Your task to perform on an android device: set the timer Image 0: 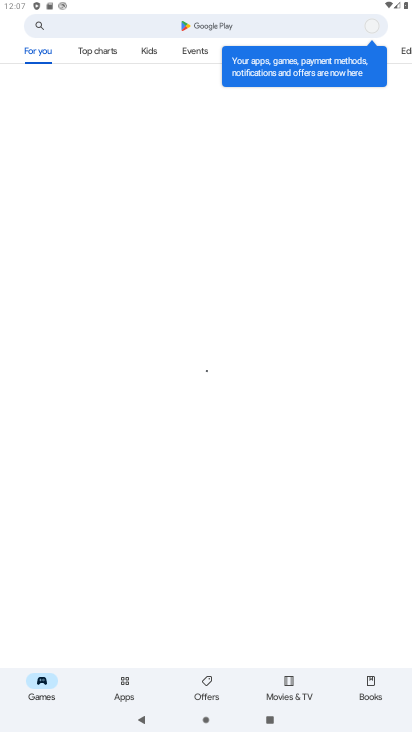
Step 0: press home button
Your task to perform on an android device: set the timer Image 1: 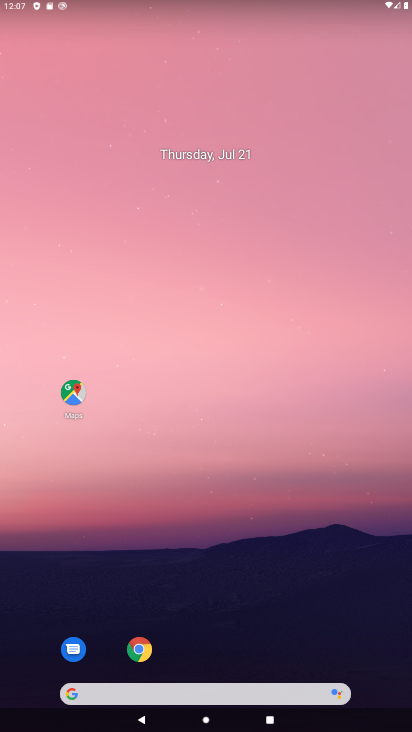
Step 1: drag from (219, 662) to (220, 270)
Your task to perform on an android device: set the timer Image 2: 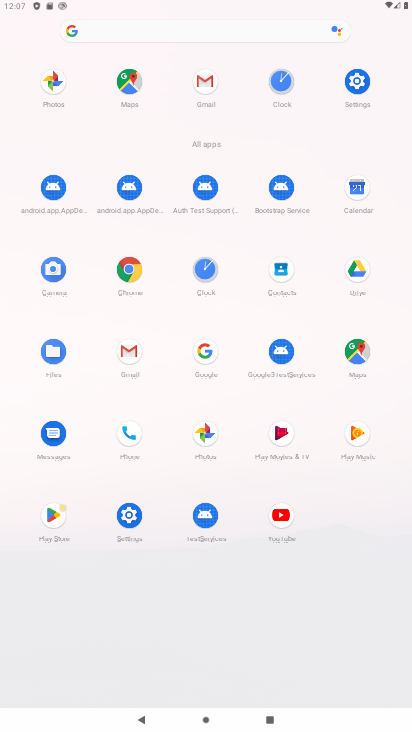
Step 2: click (199, 266)
Your task to perform on an android device: set the timer Image 3: 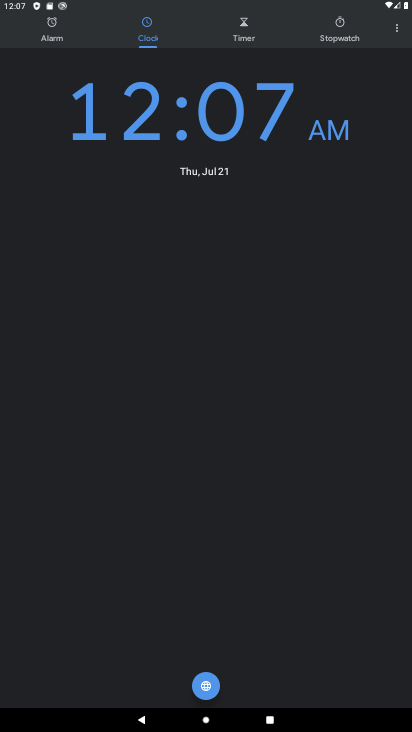
Step 3: click (242, 30)
Your task to perform on an android device: set the timer Image 4: 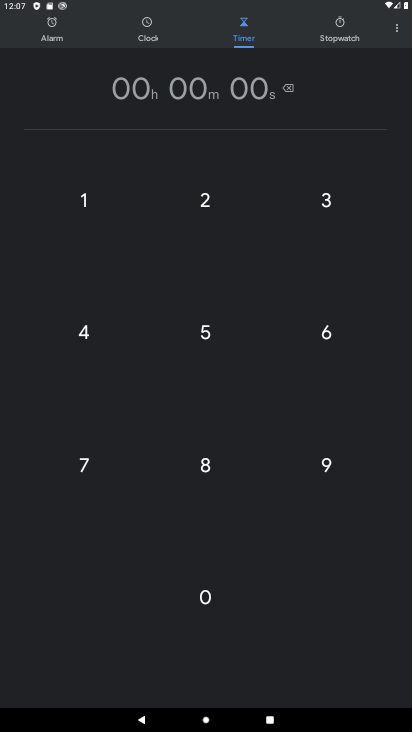
Step 4: click (206, 204)
Your task to perform on an android device: set the timer Image 5: 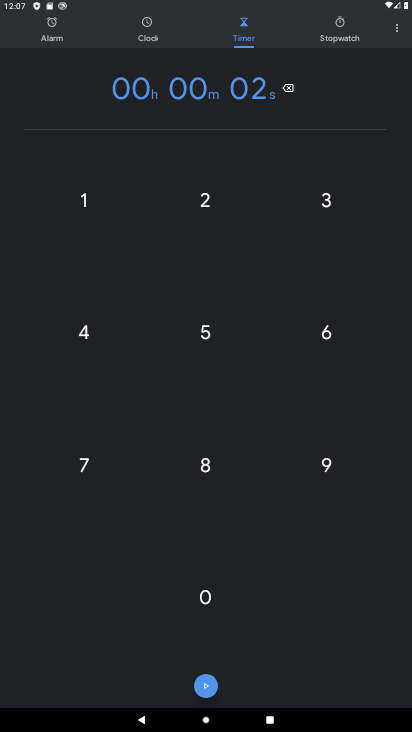
Step 5: click (211, 333)
Your task to perform on an android device: set the timer Image 6: 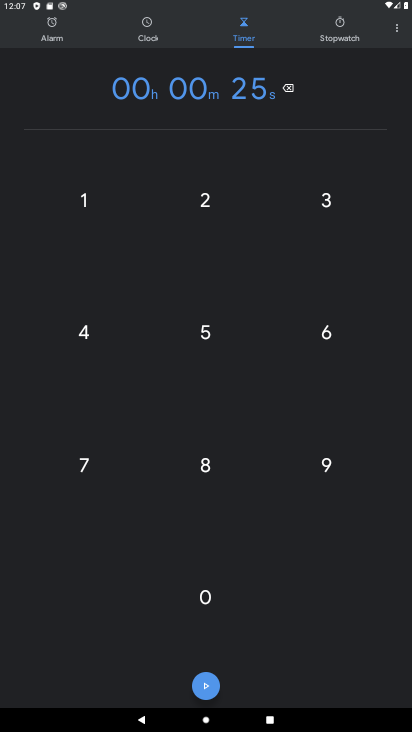
Step 6: click (201, 452)
Your task to perform on an android device: set the timer Image 7: 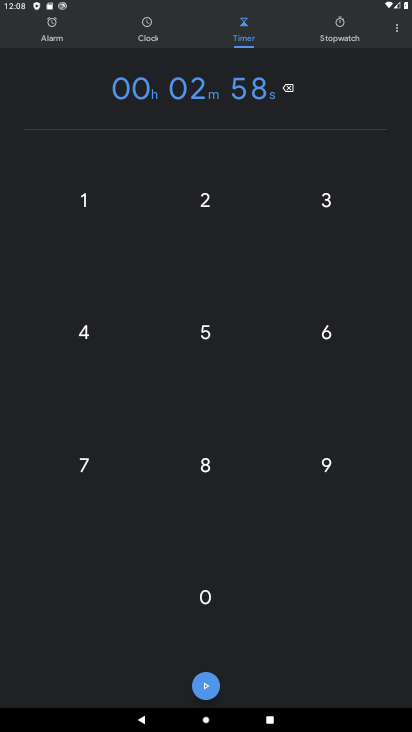
Step 7: click (209, 681)
Your task to perform on an android device: set the timer Image 8: 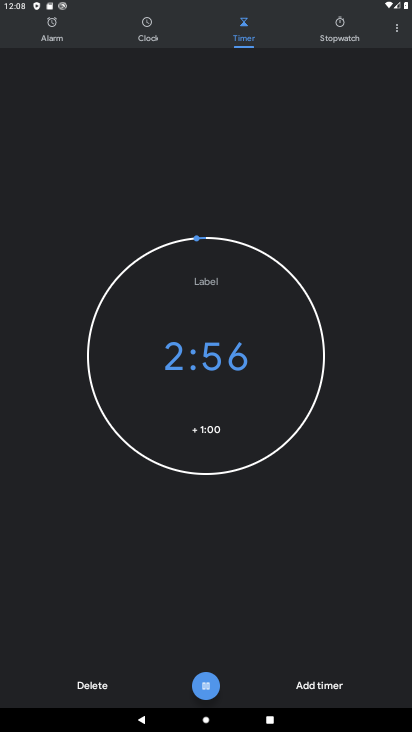
Step 8: task complete